Your task to perform on an android device: Show the shopping cart on walmart.com. Search for "macbook pro 13 inch" on walmart.com, select the first entry, add it to the cart, then select checkout. Image 0: 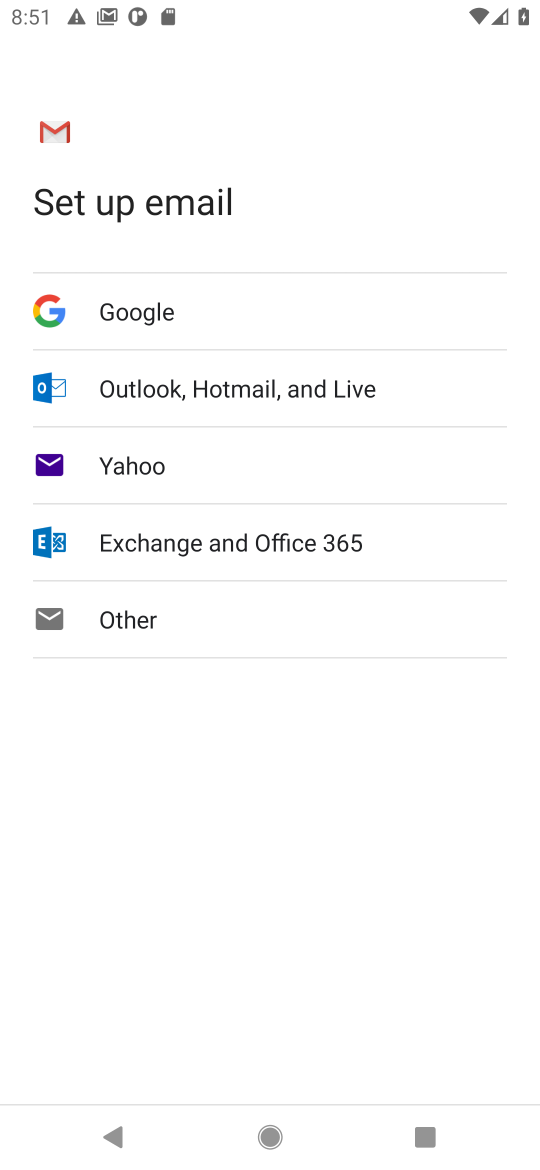
Step 0: press home button
Your task to perform on an android device: Show the shopping cart on walmart.com. Search for "macbook pro 13 inch" on walmart.com, select the first entry, add it to the cart, then select checkout. Image 1: 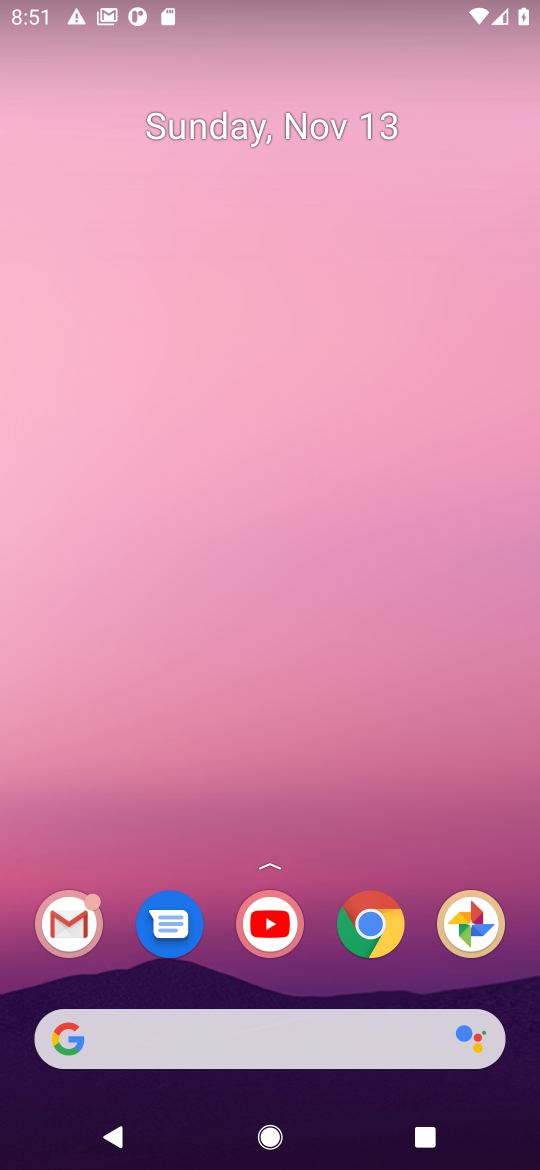
Step 1: click (373, 929)
Your task to perform on an android device: Show the shopping cart on walmart.com. Search for "macbook pro 13 inch" on walmart.com, select the first entry, add it to the cart, then select checkout. Image 2: 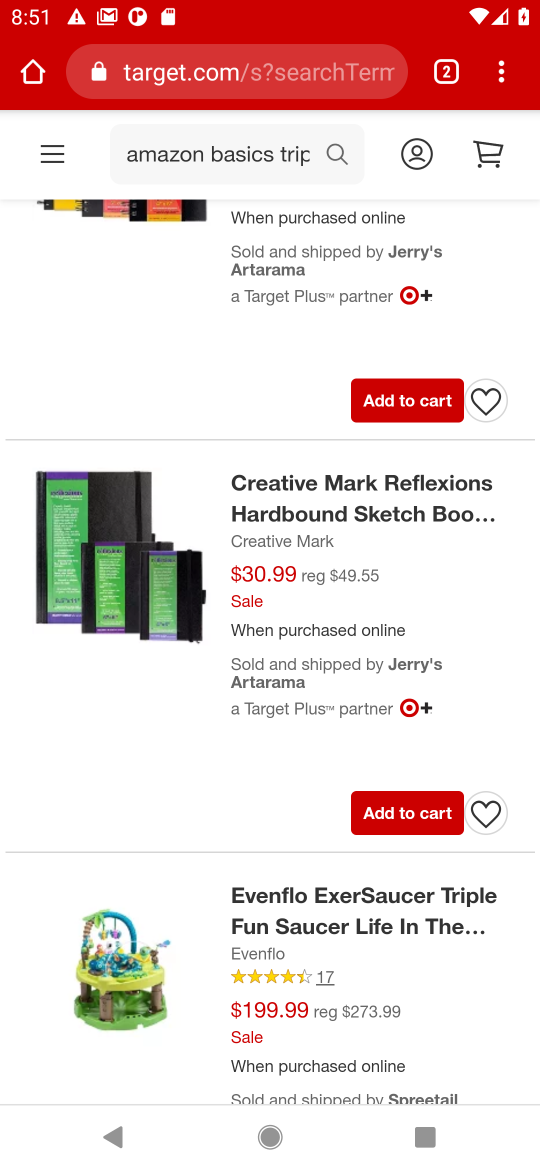
Step 2: click (272, 75)
Your task to perform on an android device: Show the shopping cart on walmart.com. Search for "macbook pro 13 inch" on walmart.com, select the first entry, add it to the cart, then select checkout. Image 3: 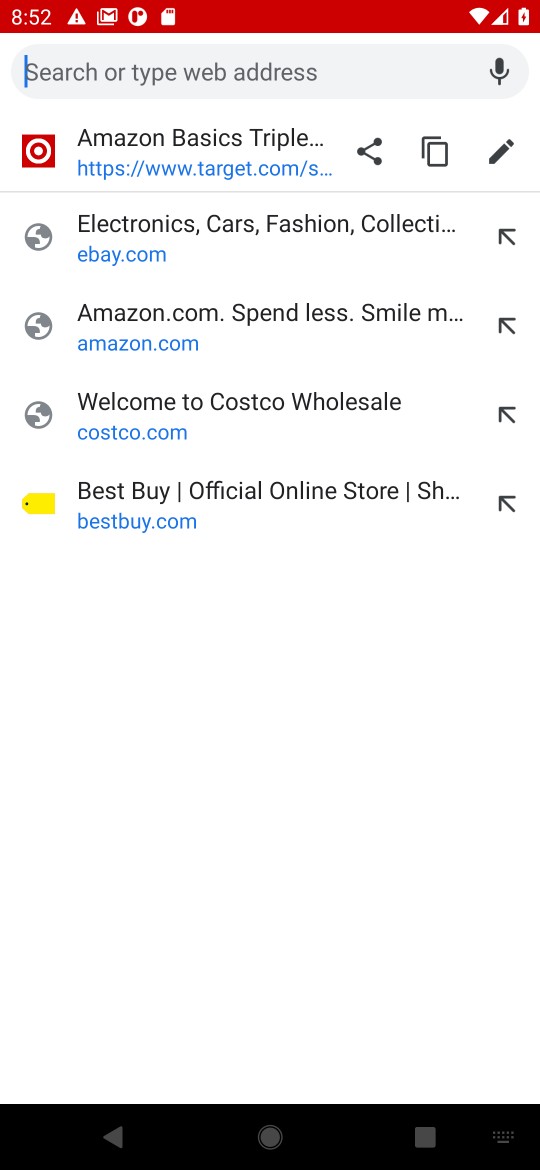
Step 3: type "walmart.com"
Your task to perform on an android device: Show the shopping cart on walmart.com. Search for "macbook pro 13 inch" on walmart.com, select the first entry, add it to the cart, then select checkout. Image 4: 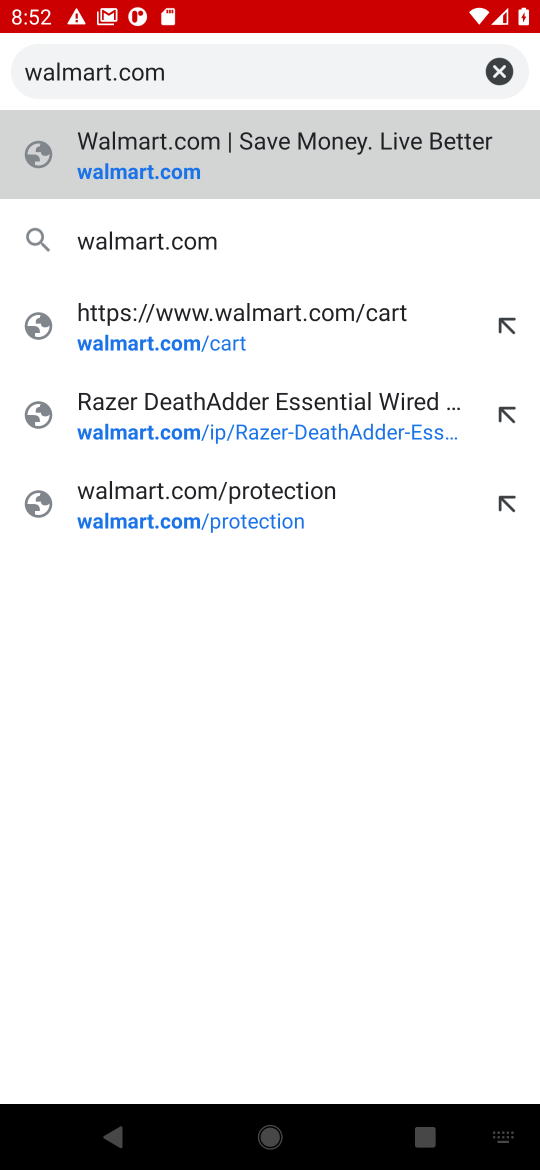
Step 4: click (145, 167)
Your task to perform on an android device: Show the shopping cart on walmart.com. Search for "macbook pro 13 inch" on walmart.com, select the first entry, add it to the cart, then select checkout. Image 5: 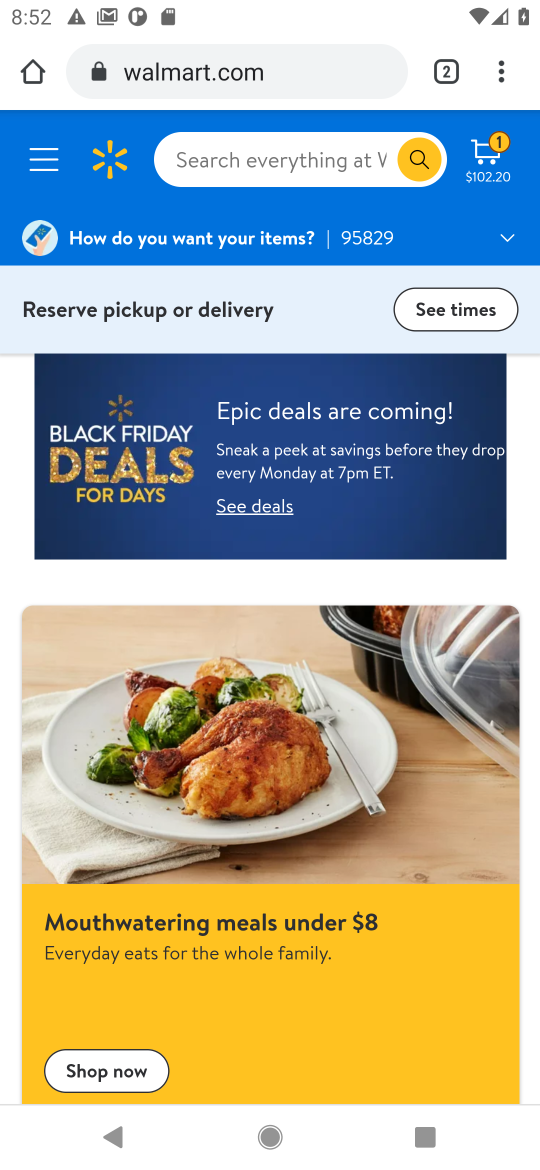
Step 5: click (480, 176)
Your task to perform on an android device: Show the shopping cart on walmart.com. Search for "macbook pro 13 inch" on walmart.com, select the first entry, add it to the cart, then select checkout. Image 6: 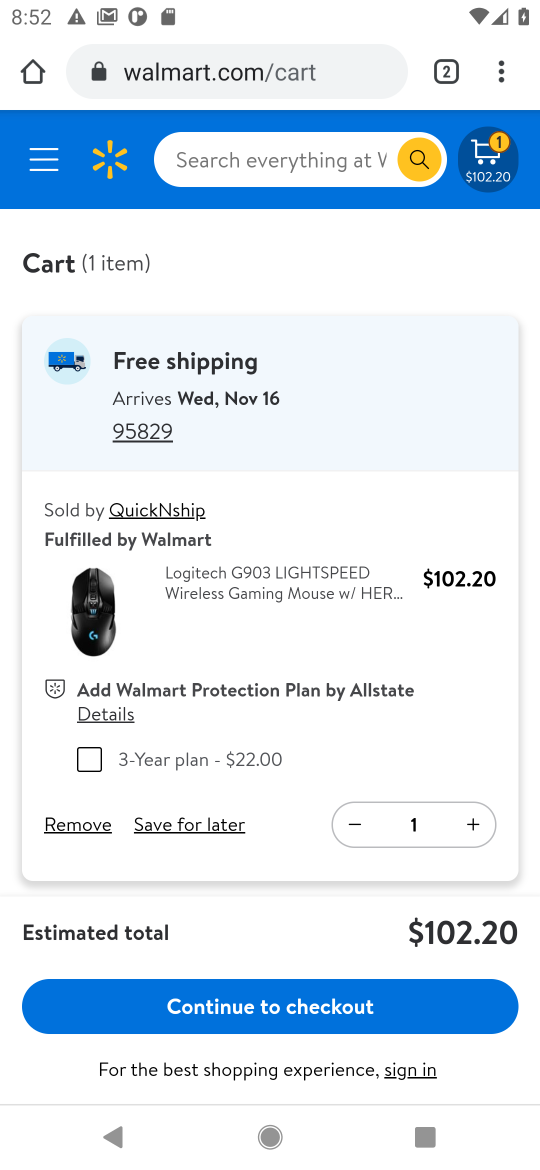
Step 6: drag from (296, 747) to (282, 575)
Your task to perform on an android device: Show the shopping cart on walmart.com. Search for "macbook pro 13 inch" on walmart.com, select the first entry, add it to the cart, then select checkout. Image 7: 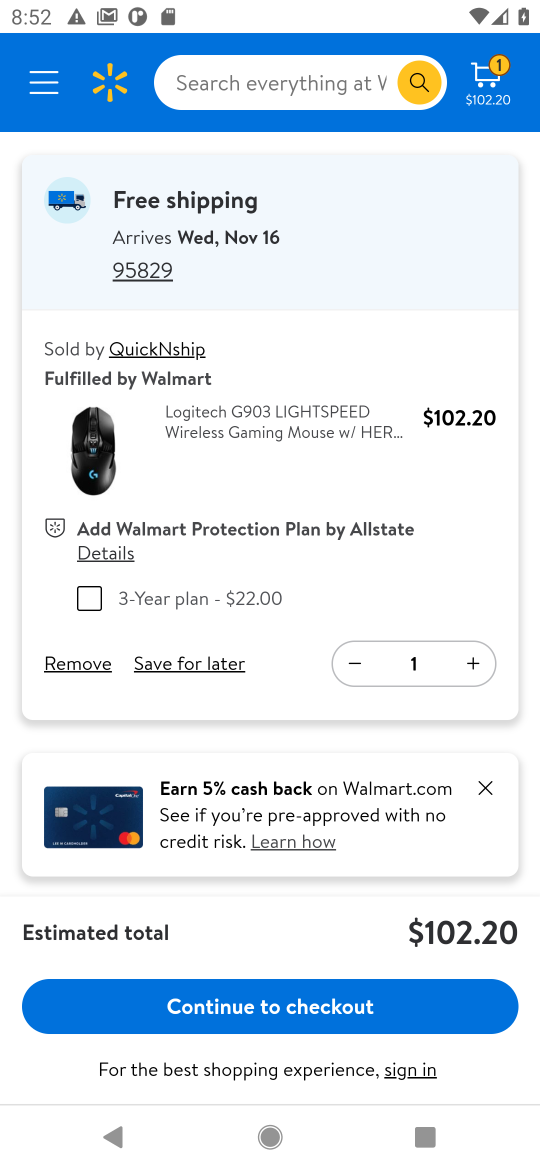
Step 7: click (252, 94)
Your task to perform on an android device: Show the shopping cart on walmart.com. Search for "macbook pro 13 inch" on walmart.com, select the first entry, add it to the cart, then select checkout. Image 8: 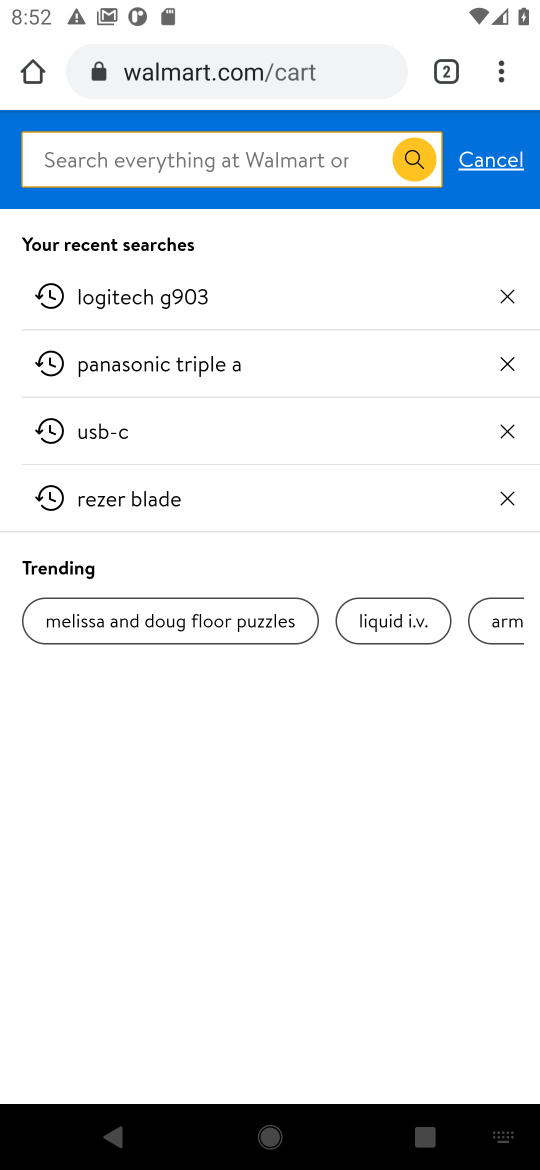
Step 8: type "macbook pro 13 inch"
Your task to perform on an android device: Show the shopping cart on walmart.com. Search for "macbook pro 13 inch" on walmart.com, select the first entry, add it to the cart, then select checkout. Image 9: 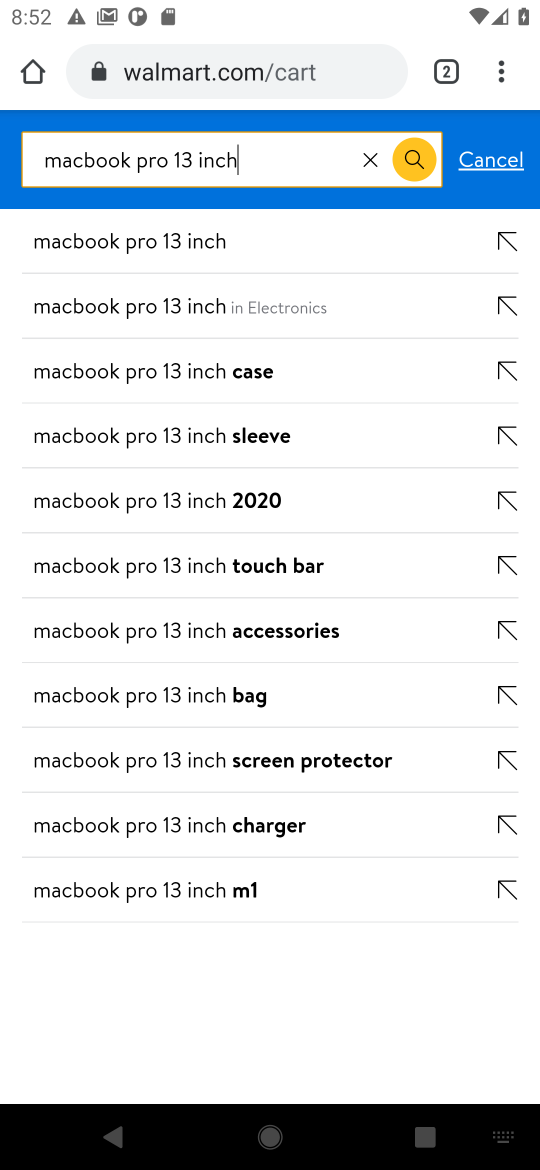
Step 9: click (190, 261)
Your task to perform on an android device: Show the shopping cart on walmart.com. Search for "macbook pro 13 inch" on walmart.com, select the first entry, add it to the cart, then select checkout. Image 10: 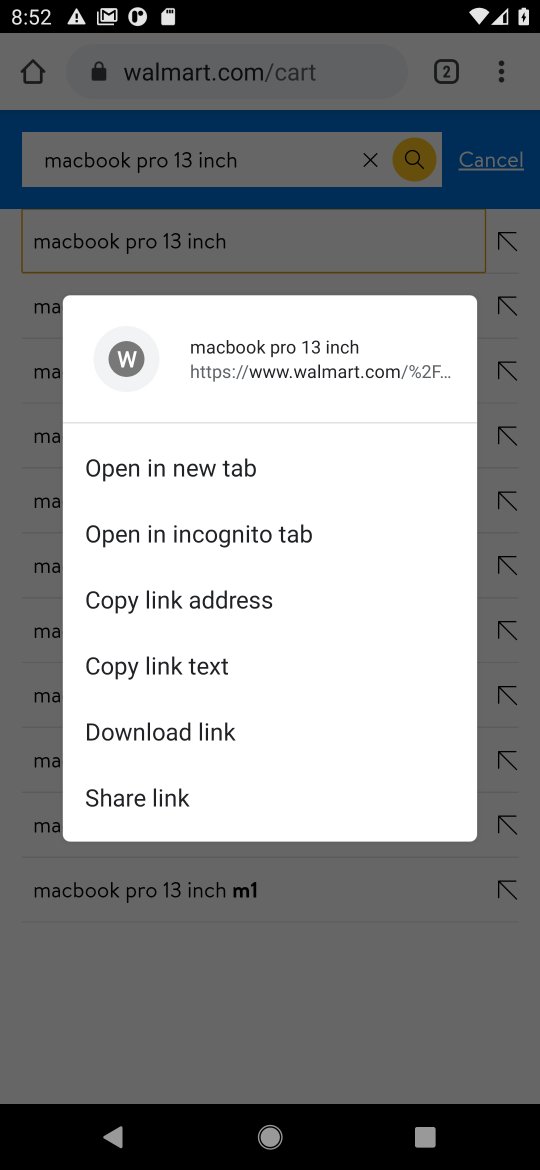
Step 10: click (33, 254)
Your task to perform on an android device: Show the shopping cart on walmart.com. Search for "macbook pro 13 inch" on walmart.com, select the first entry, add it to the cart, then select checkout. Image 11: 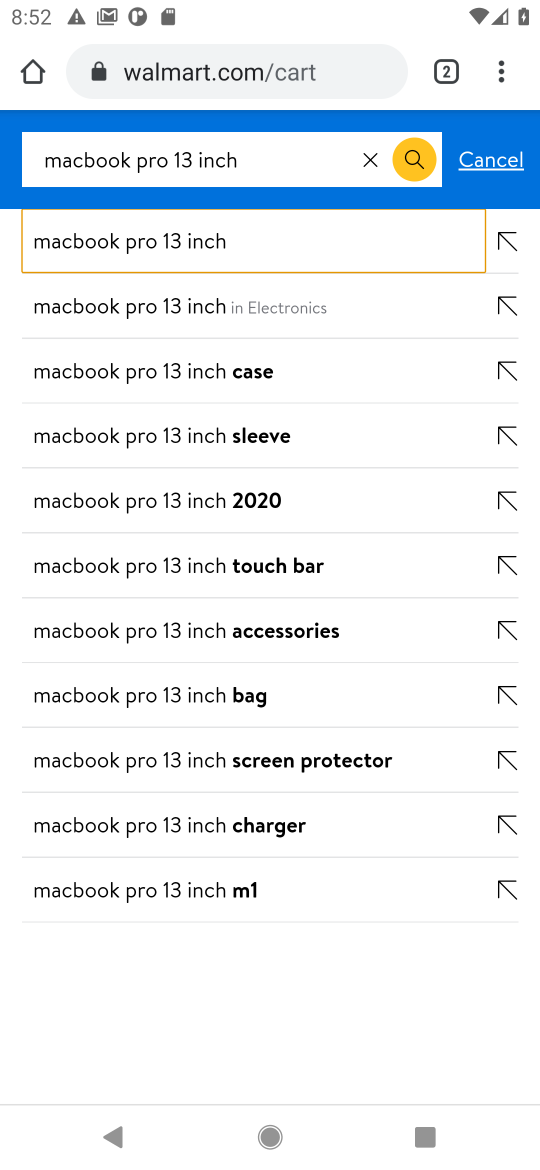
Step 11: click (33, 254)
Your task to perform on an android device: Show the shopping cart on walmart.com. Search for "macbook pro 13 inch" on walmart.com, select the first entry, add it to the cart, then select checkout. Image 12: 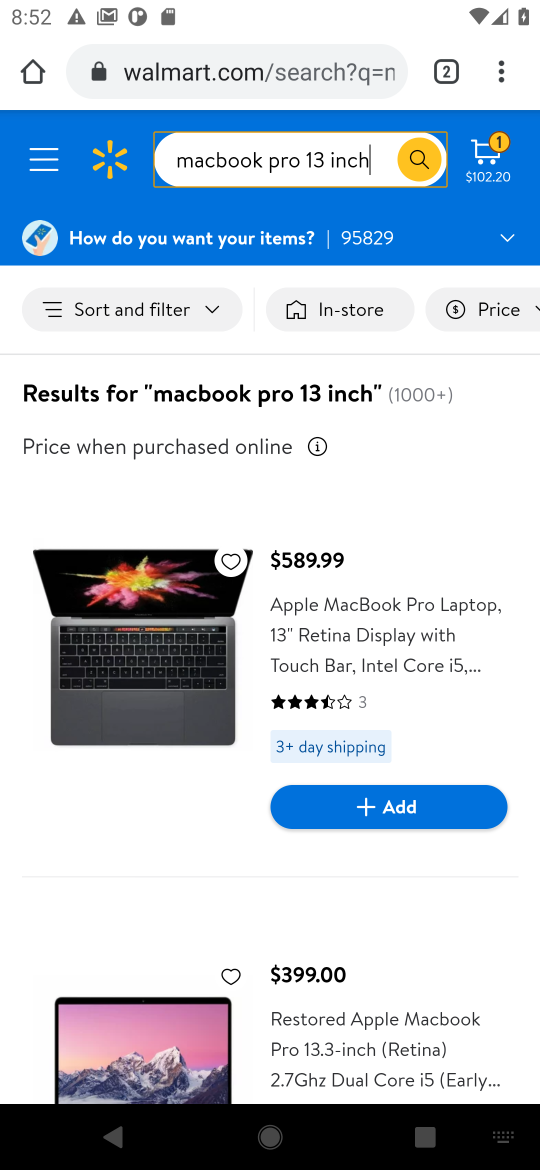
Step 12: click (414, 802)
Your task to perform on an android device: Show the shopping cart on walmart.com. Search for "macbook pro 13 inch" on walmart.com, select the first entry, add it to the cart, then select checkout. Image 13: 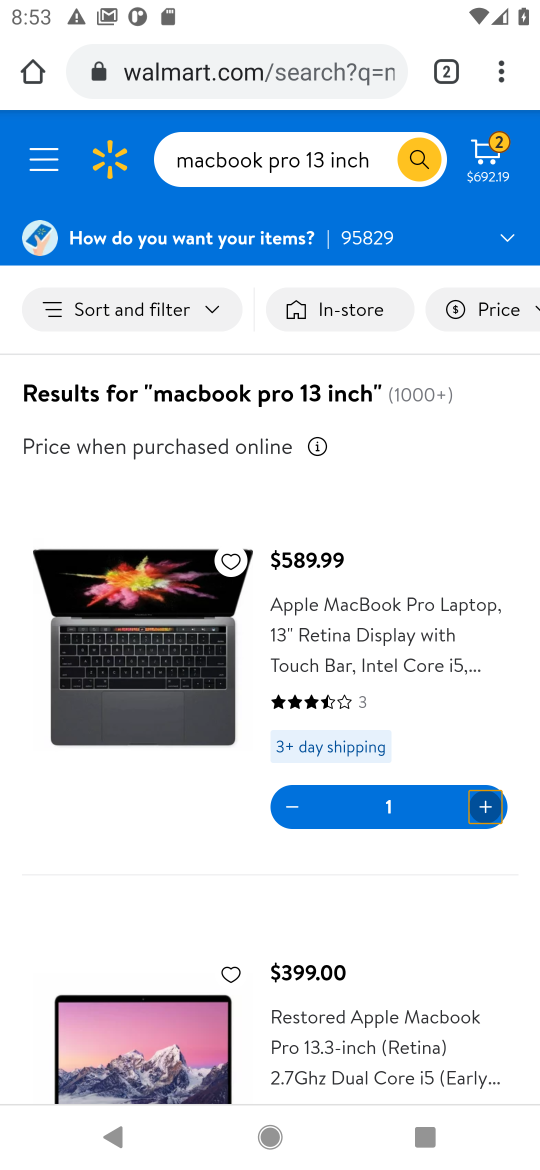
Step 13: click (487, 157)
Your task to perform on an android device: Show the shopping cart on walmart.com. Search for "macbook pro 13 inch" on walmart.com, select the first entry, add it to the cart, then select checkout. Image 14: 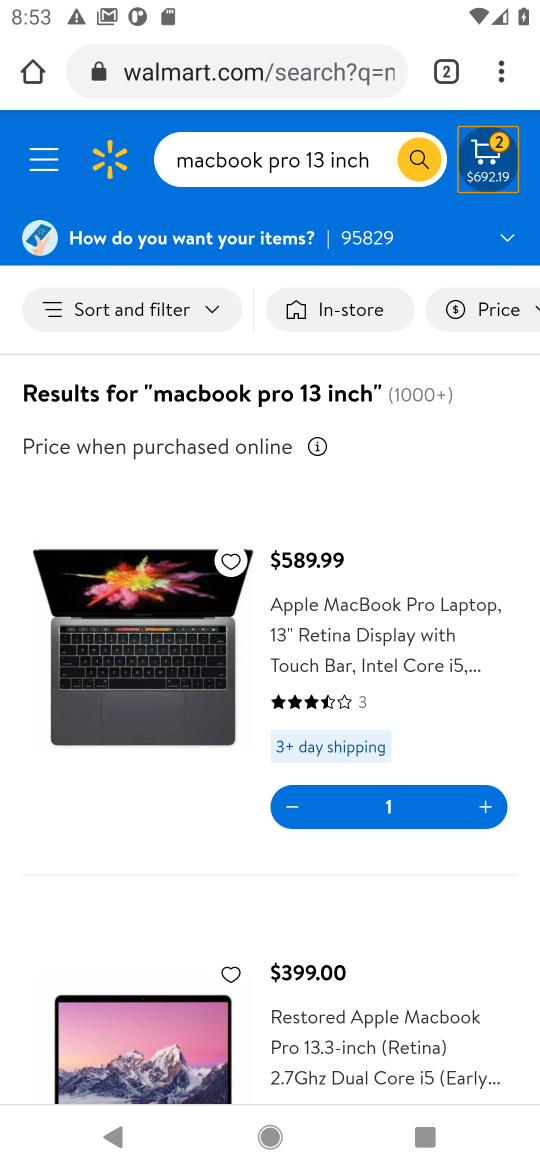
Step 14: click (487, 170)
Your task to perform on an android device: Show the shopping cart on walmart.com. Search for "macbook pro 13 inch" on walmart.com, select the first entry, add it to the cart, then select checkout. Image 15: 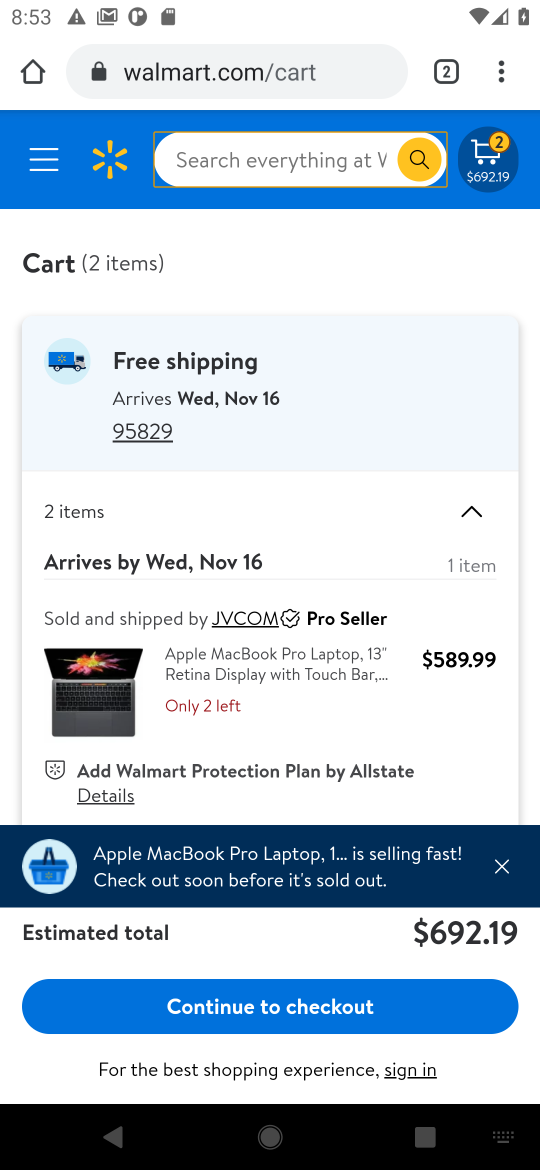
Step 15: click (265, 999)
Your task to perform on an android device: Show the shopping cart on walmart.com. Search for "macbook pro 13 inch" on walmart.com, select the first entry, add it to the cart, then select checkout. Image 16: 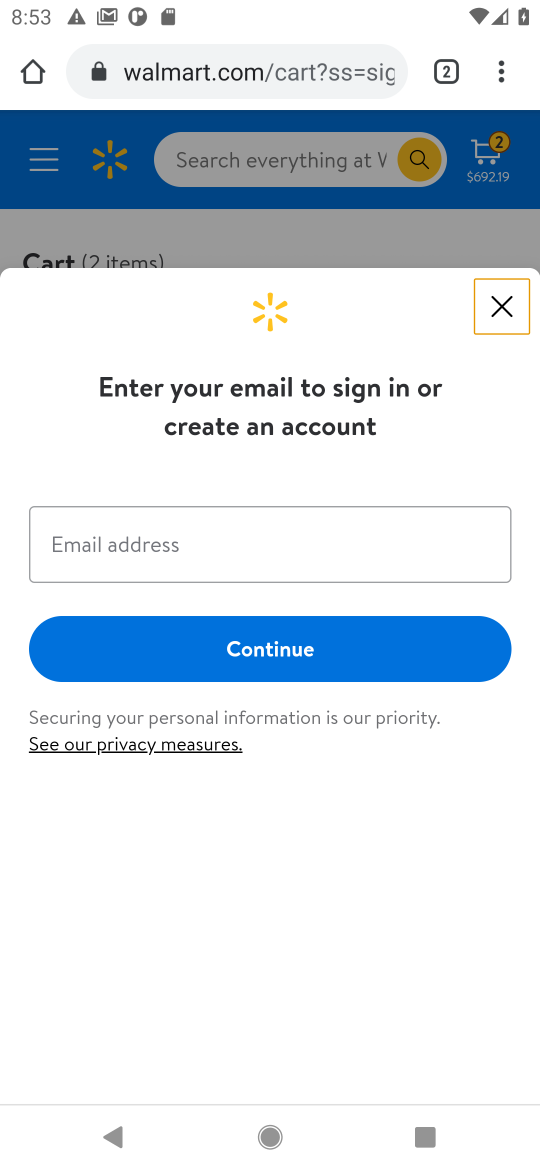
Step 16: task complete